Your task to perform on an android device: Open Google Chrome and click the shortcut for Amazon.com Image 0: 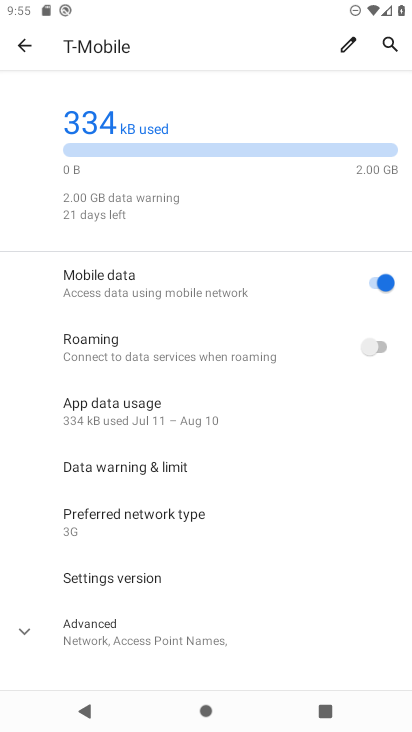
Step 0: press home button
Your task to perform on an android device: Open Google Chrome and click the shortcut for Amazon.com Image 1: 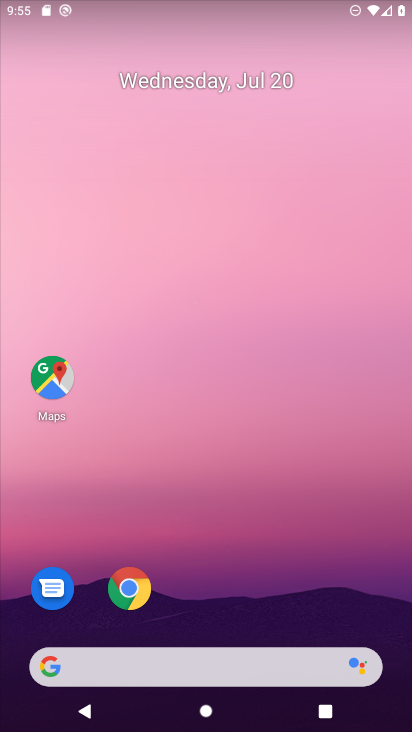
Step 1: click (142, 596)
Your task to perform on an android device: Open Google Chrome and click the shortcut for Amazon.com Image 2: 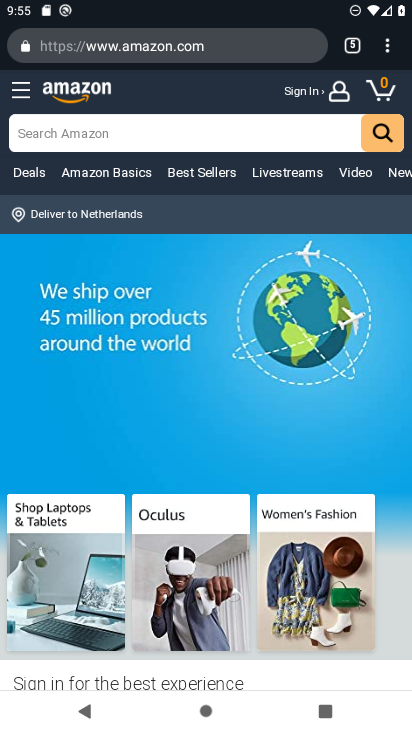
Step 2: click (354, 55)
Your task to perform on an android device: Open Google Chrome and click the shortcut for Amazon.com Image 3: 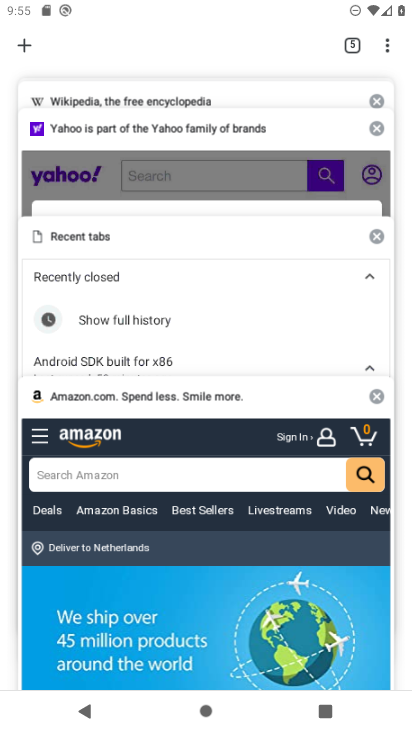
Step 3: click (24, 33)
Your task to perform on an android device: Open Google Chrome and click the shortcut for Amazon.com Image 4: 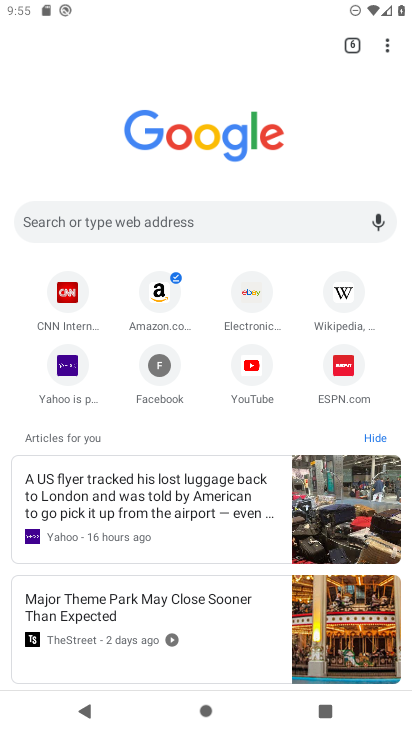
Step 4: click (175, 301)
Your task to perform on an android device: Open Google Chrome and click the shortcut for Amazon.com Image 5: 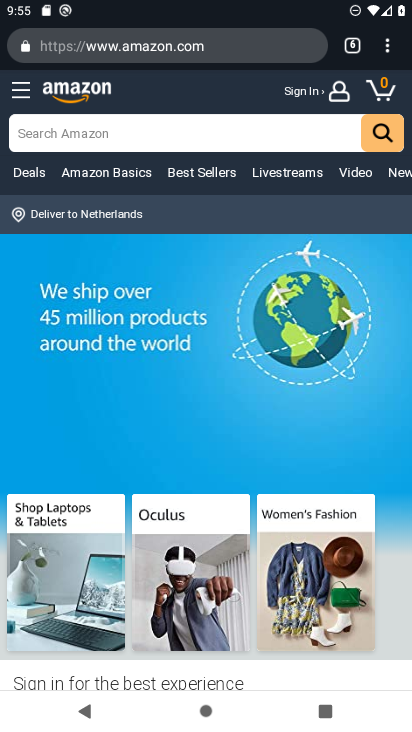
Step 5: task complete